Your task to perform on an android device: turn on showing notifications on the lock screen Image 0: 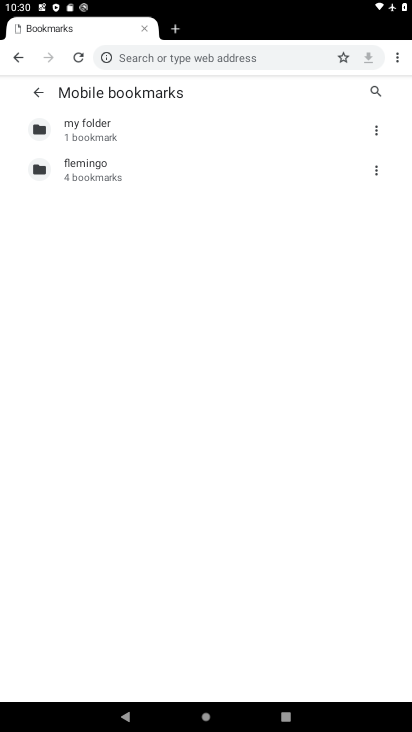
Step 0: task complete